Your task to perform on an android device: Go to ESPN.com Image 0: 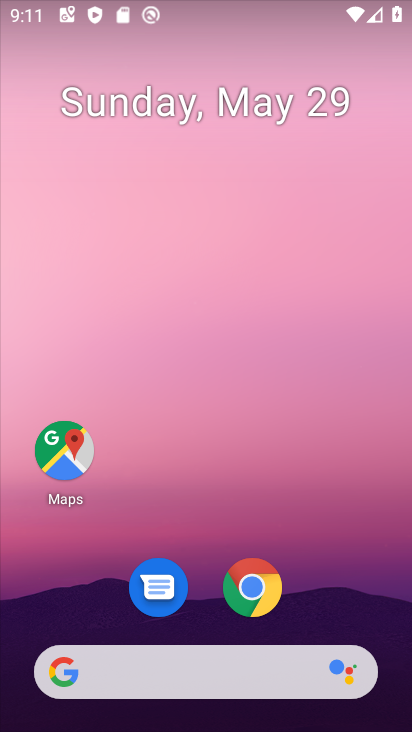
Step 0: click (263, 582)
Your task to perform on an android device: Go to ESPN.com Image 1: 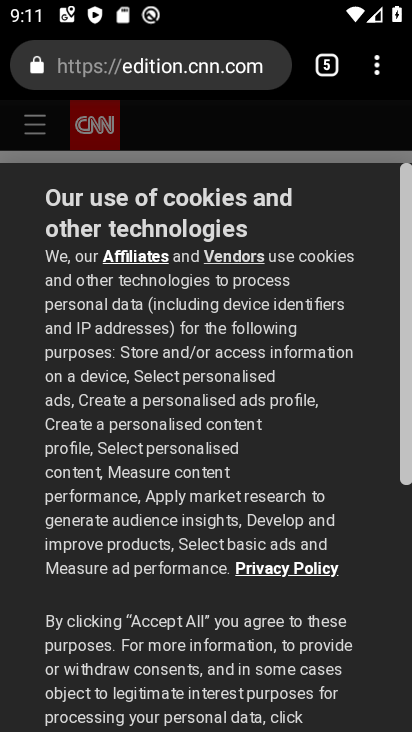
Step 1: click (319, 58)
Your task to perform on an android device: Go to ESPN.com Image 2: 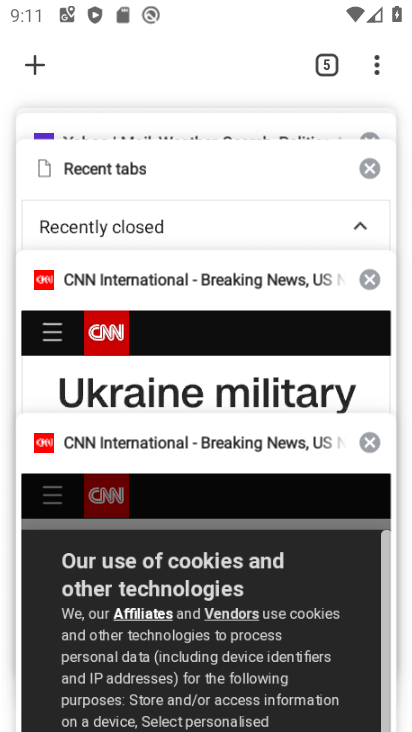
Step 2: click (39, 60)
Your task to perform on an android device: Go to ESPN.com Image 3: 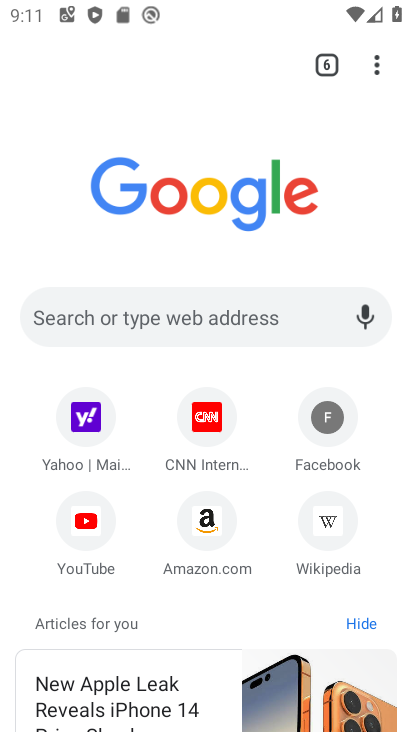
Step 3: click (128, 318)
Your task to perform on an android device: Go to ESPN.com Image 4: 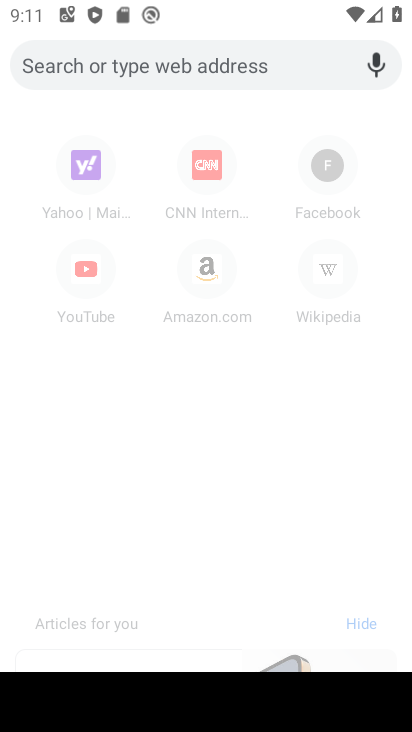
Step 4: type "espn.com"
Your task to perform on an android device: Go to ESPN.com Image 5: 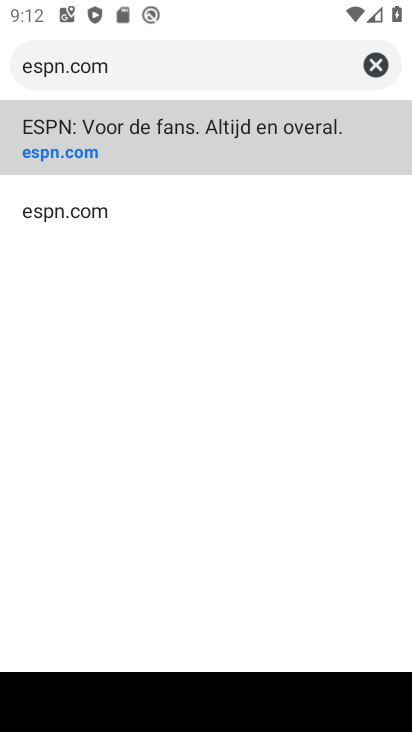
Step 5: click (104, 147)
Your task to perform on an android device: Go to ESPN.com Image 6: 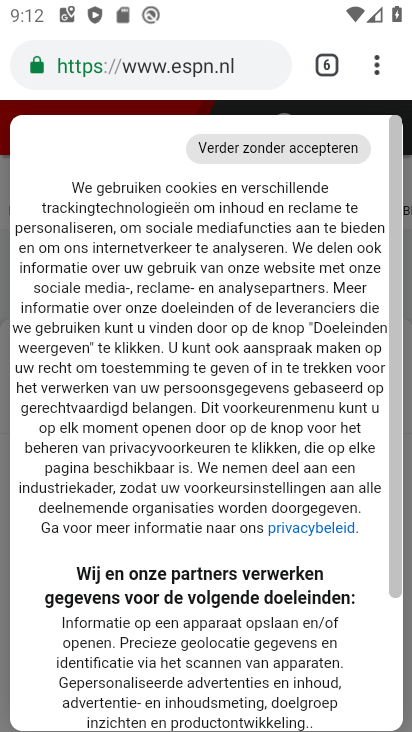
Step 6: task complete